Your task to perform on an android device: change notification settings in the gmail app Image 0: 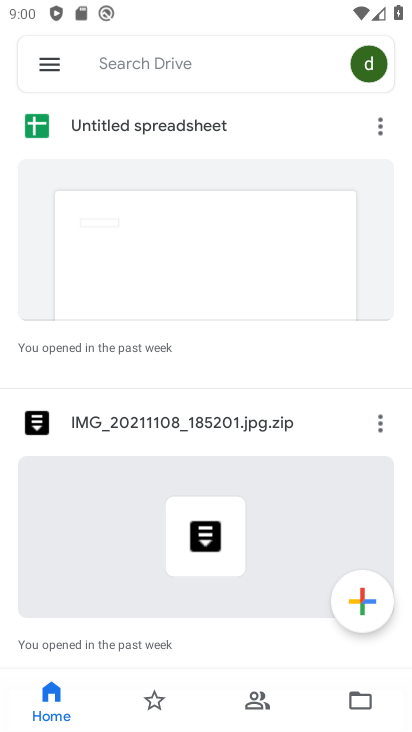
Step 0: press home button
Your task to perform on an android device: change notification settings in the gmail app Image 1: 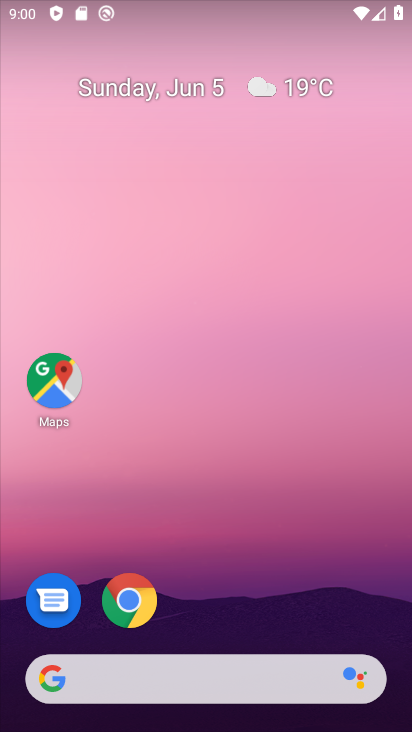
Step 1: drag from (286, 621) to (280, 330)
Your task to perform on an android device: change notification settings in the gmail app Image 2: 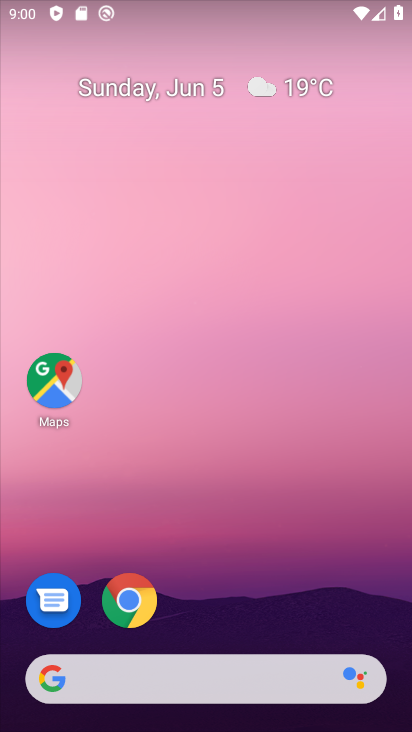
Step 2: drag from (242, 606) to (262, 219)
Your task to perform on an android device: change notification settings in the gmail app Image 3: 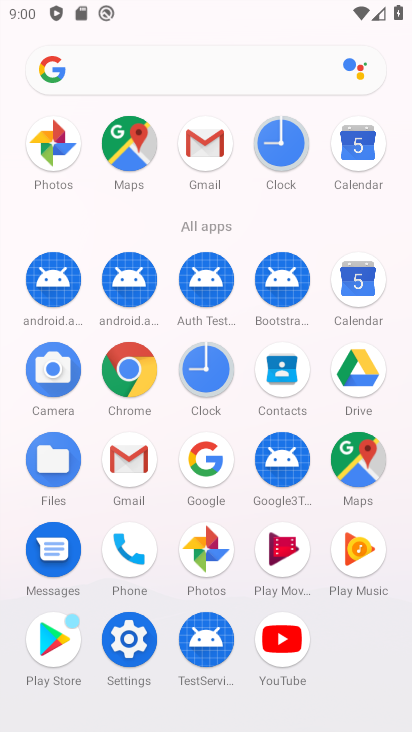
Step 3: click (222, 152)
Your task to perform on an android device: change notification settings in the gmail app Image 4: 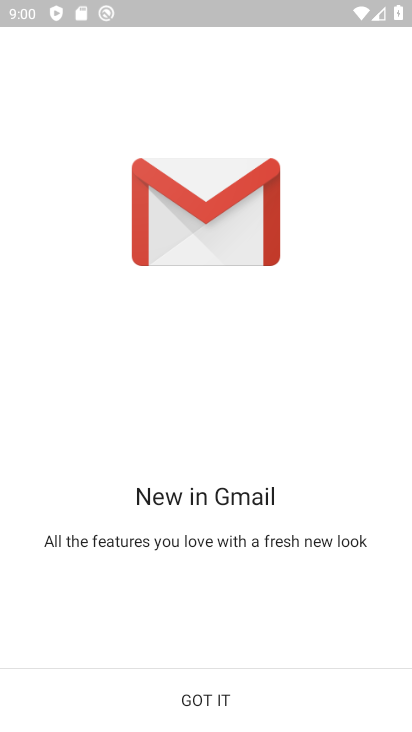
Step 4: click (278, 686)
Your task to perform on an android device: change notification settings in the gmail app Image 5: 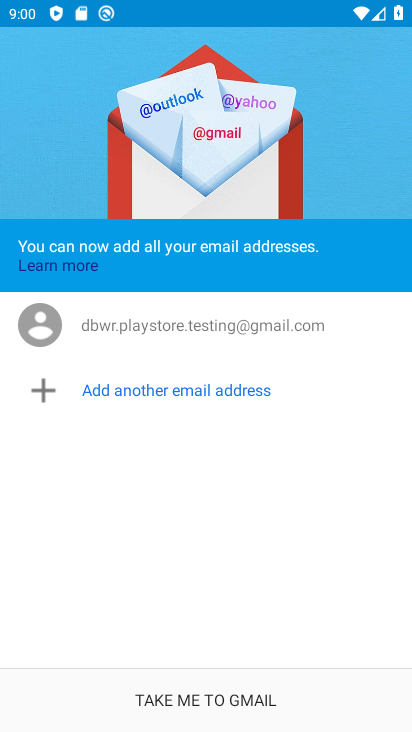
Step 5: click (257, 694)
Your task to perform on an android device: change notification settings in the gmail app Image 6: 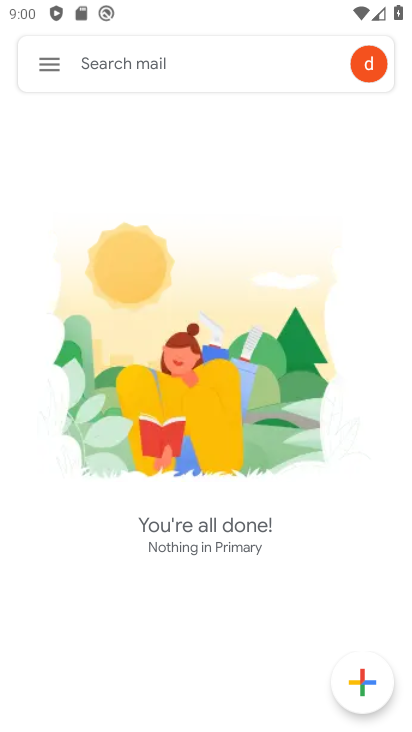
Step 6: click (53, 78)
Your task to perform on an android device: change notification settings in the gmail app Image 7: 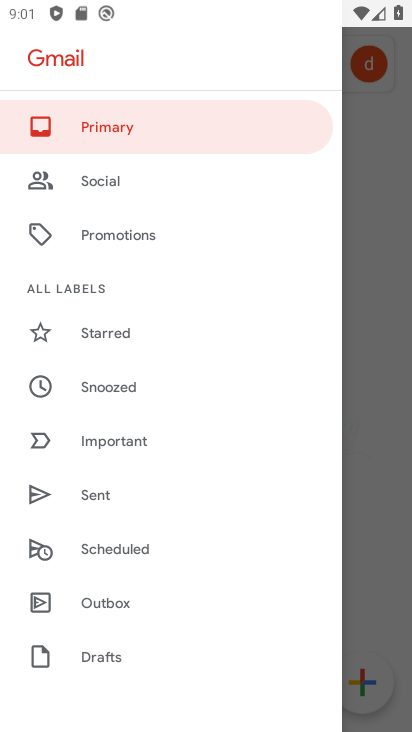
Step 7: drag from (140, 642) to (144, 113)
Your task to perform on an android device: change notification settings in the gmail app Image 8: 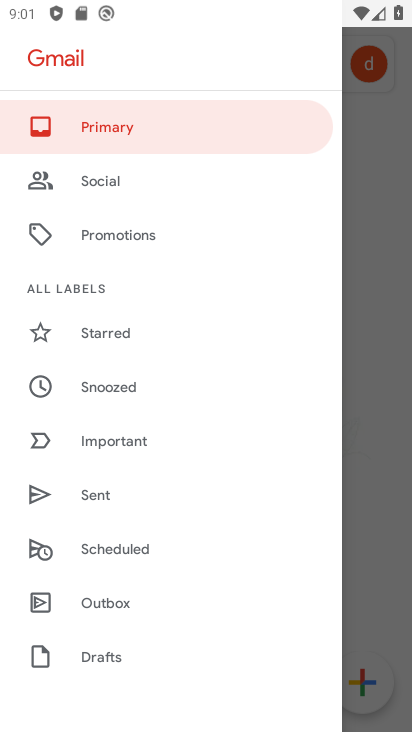
Step 8: drag from (176, 653) to (126, 49)
Your task to perform on an android device: change notification settings in the gmail app Image 9: 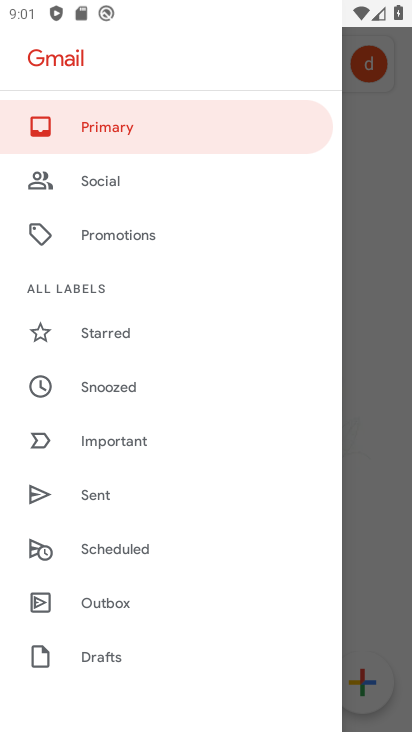
Step 9: drag from (110, 634) to (71, 210)
Your task to perform on an android device: change notification settings in the gmail app Image 10: 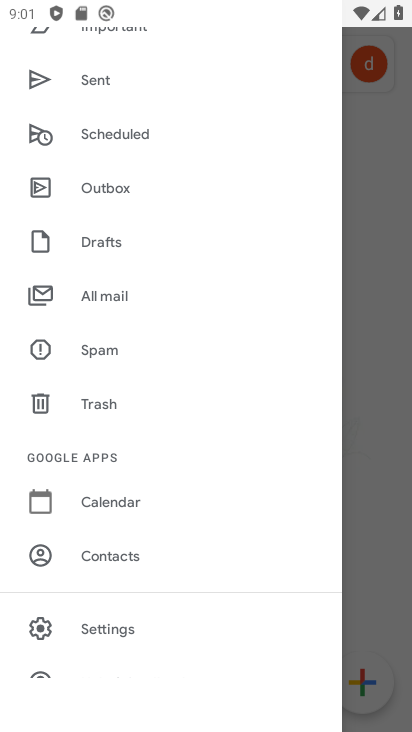
Step 10: click (113, 620)
Your task to perform on an android device: change notification settings in the gmail app Image 11: 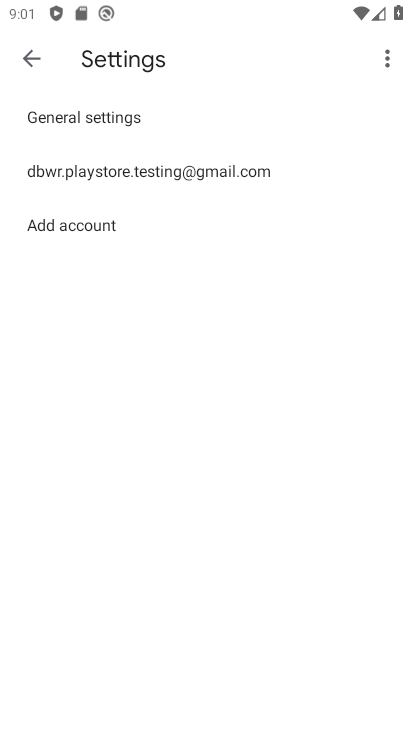
Step 11: click (204, 173)
Your task to perform on an android device: change notification settings in the gmail app Image 12: 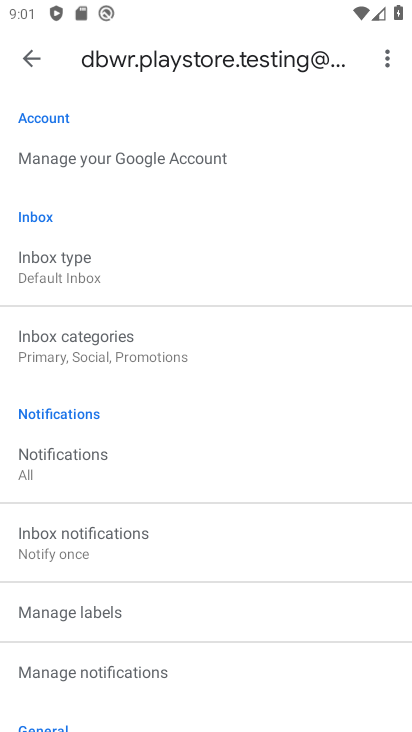
Step 12: drag from (198, 571) to (121, 145)
Your task to perform on an android device: change notification settings in the gmail app Image 13: 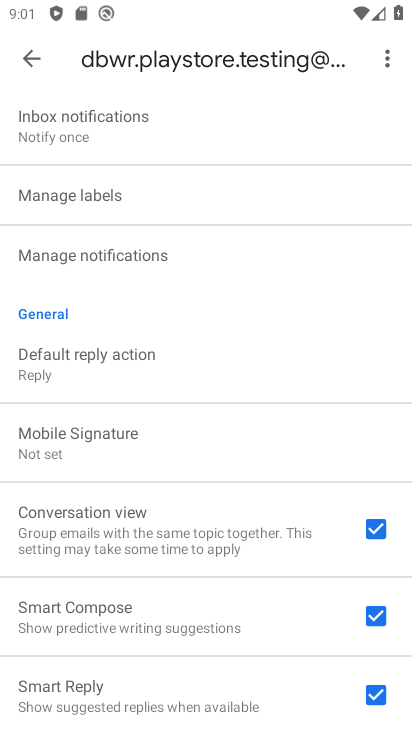
Step 13: click (102, 265)
Your task to perform on an android device: change notification settings in the gmail app Image 14: 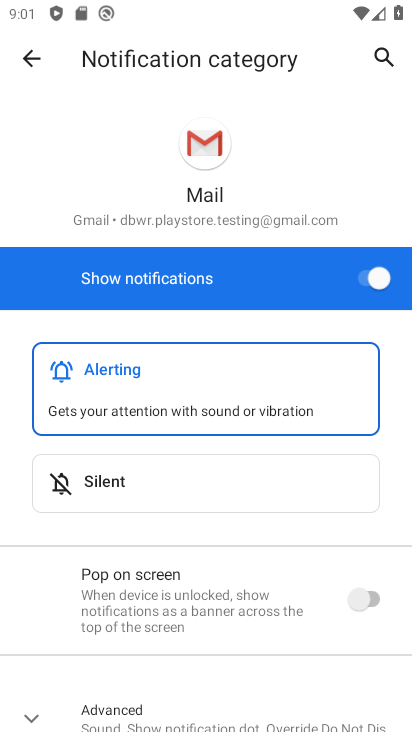
Step 14: drag from (263, 523) to (260, 313)
Your task to perform on an android device: change notification settings in the gmail app Image 15: 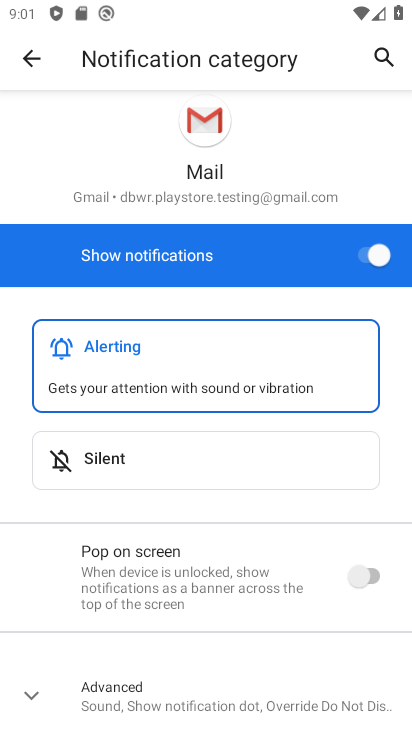
Step 15: drag from (301, 560) to (243, 258)
Your task to perform on an android device: change notification settings in the gmail app Image 16: 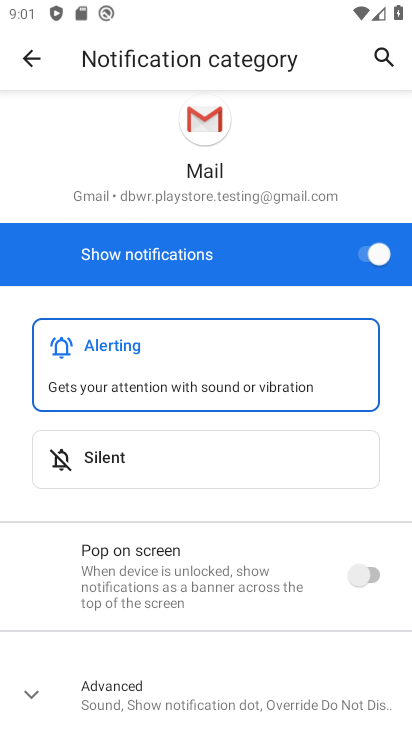
Step 16: click (272, 483)
Your task to perform on an android device: change notification settings in the gmail app Image 17: 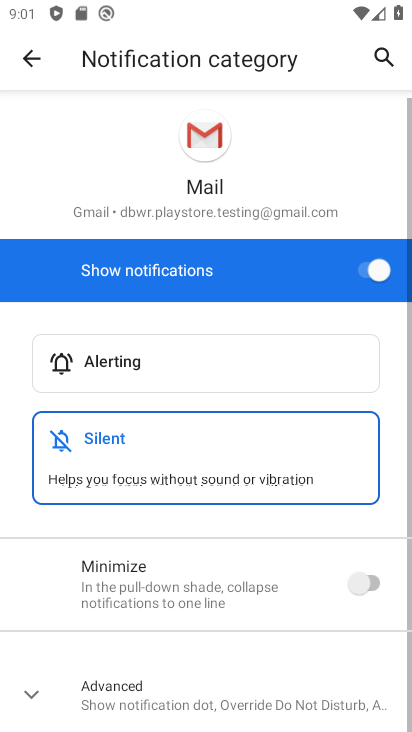
Step 17: click (358, 582)
Your task to perform on an android device: change notification settings in the gmail app Image 18: 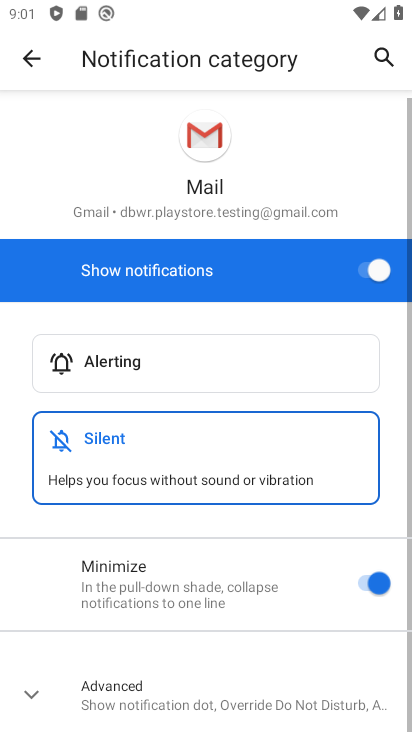
Step 18: task complete